Your task to perform on an android device: see creations saved in the google photos Image 0: 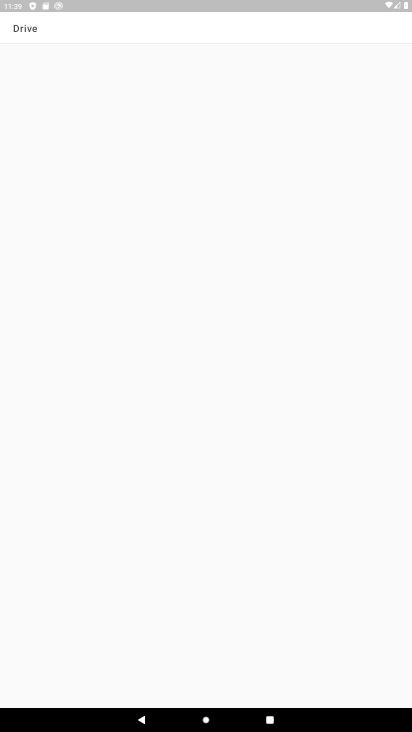
Step 0: press back button
Your task to perform on an android device: see creations saved in the google photos Image 1: 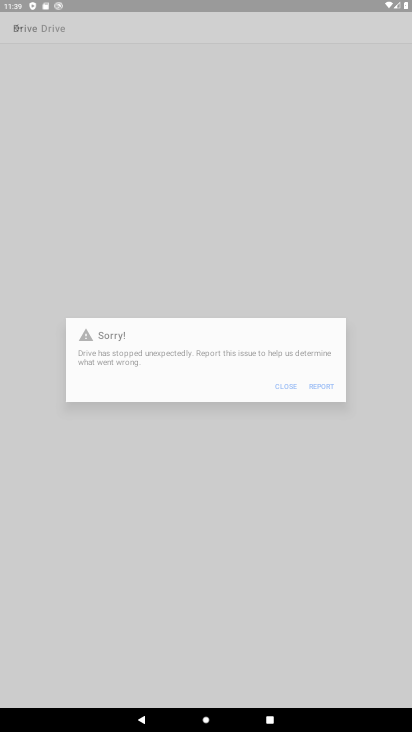
Step 1: press back button
Your task to perform on an android device: see creations saved in the google photos Image 2: 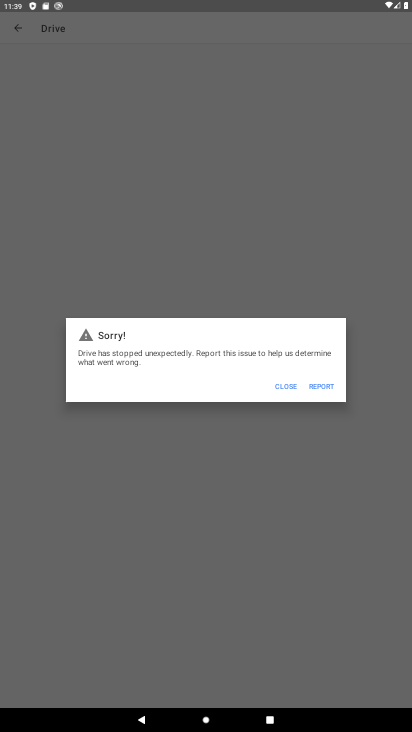
Step 2: press back button
Your task to perform on an android device: see creations saved in the google photos Image 3: 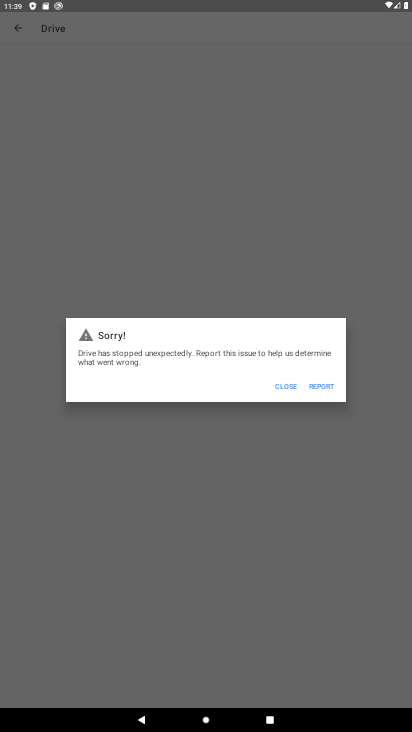
Step 3: press back button
Your task to perform on an android device: see creations saved in the google photos Image 4: 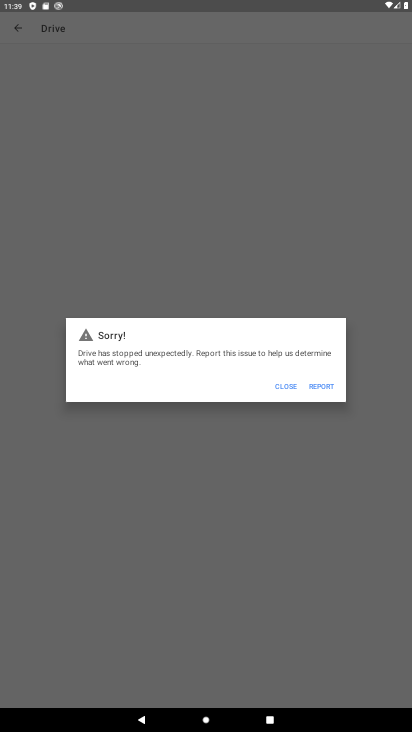
Step 4: click (275, 385)
Your task to perform on an android device: see creations saved in the google photos Image 5: 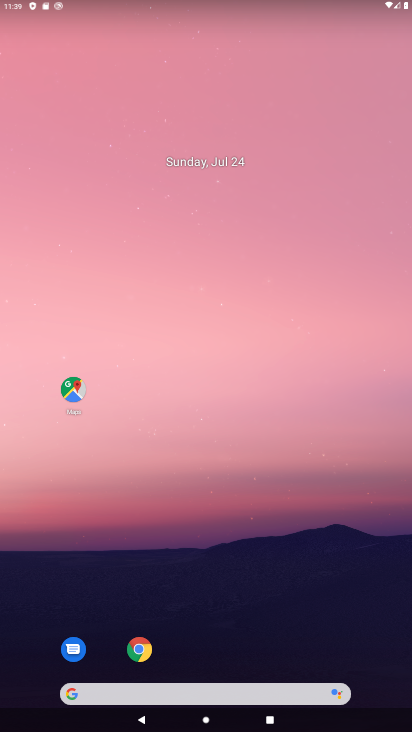
Step 5: drag from (241, 598) to (224, 283)
Your task to perform on an android device: see creations saved in the google photos Image 6: 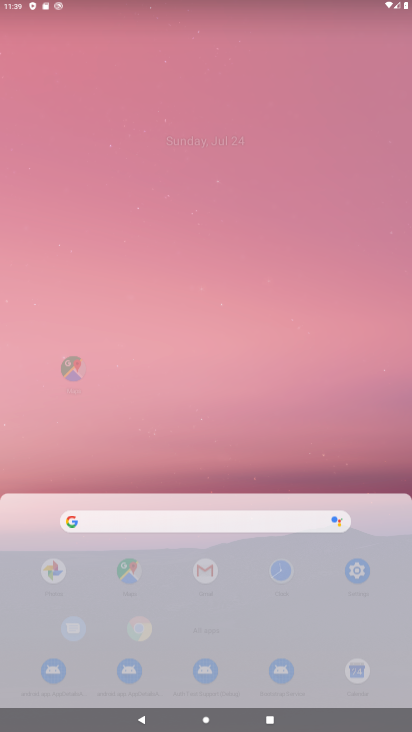
Step 6: drag from (230, 552) to (194, 348)
Your task to perform on an android device: see creations saved in the google photos Image 7: 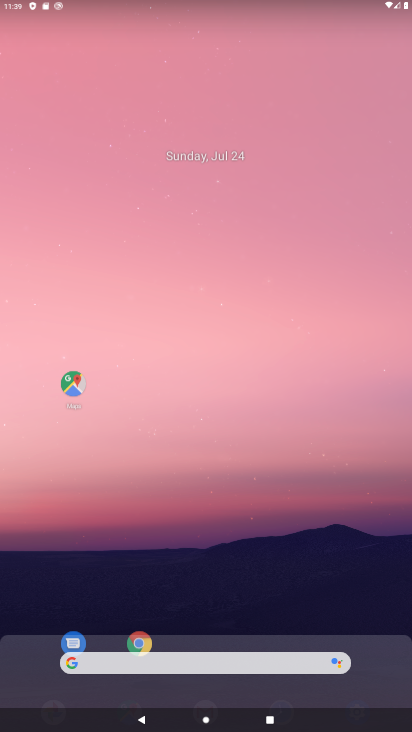
Step 7: drag from (286, 595) to (254, 194)
Your task to perform on an android device: see creations saved in the google photos Image 8: 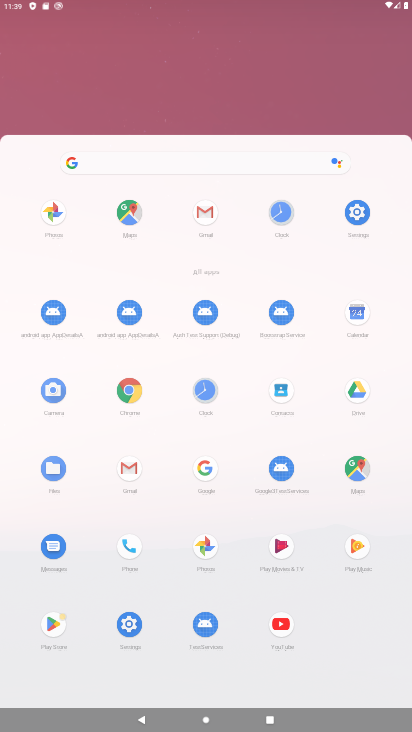
Step 8: drag from (138, 467) to (115, 240)
Your task to perform on an android device: see creations saved in the google photos Image 9: 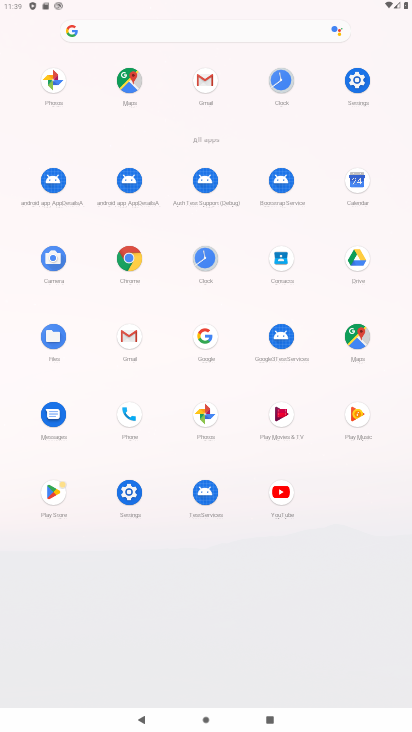
Step 9: drag from (195, 495) to (206, 65)
Your task to perform on an android device: see creations saved in the google photos Image 10: 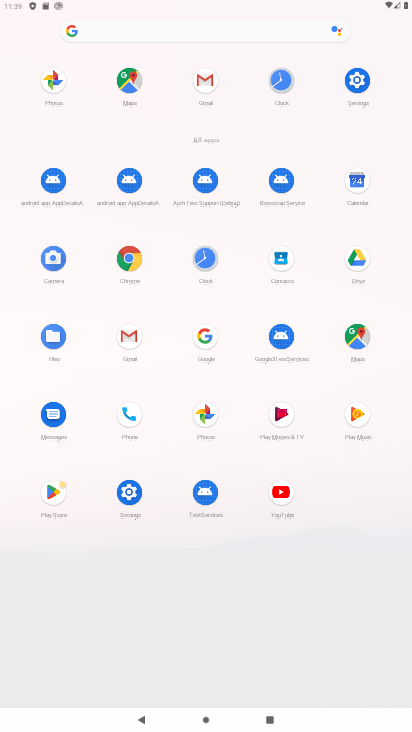
Step 10: click (211, 418)
Your task to perform on an android device: see creations saved in the google photos Image 11: 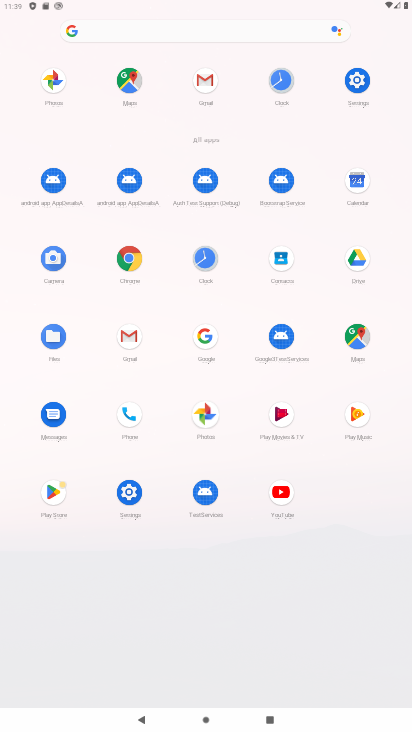
Step 11: click (211, 421)
Your task to perform on an android device: see creations saved in the google photos Image 12: 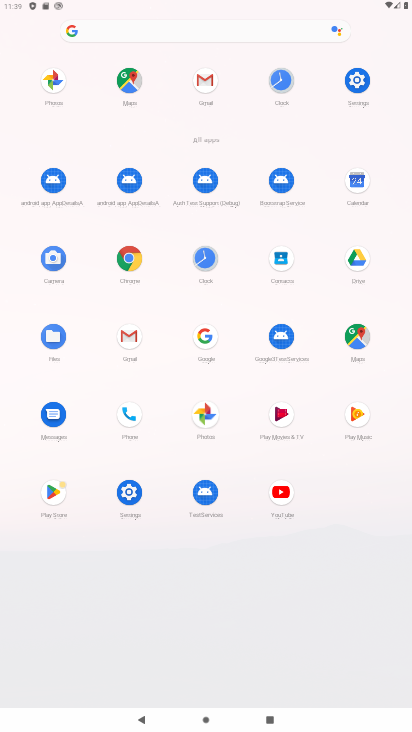
Step 12: click (211, 421)
Your task to perform on an android device: see creations saved in the google photos Image 13: 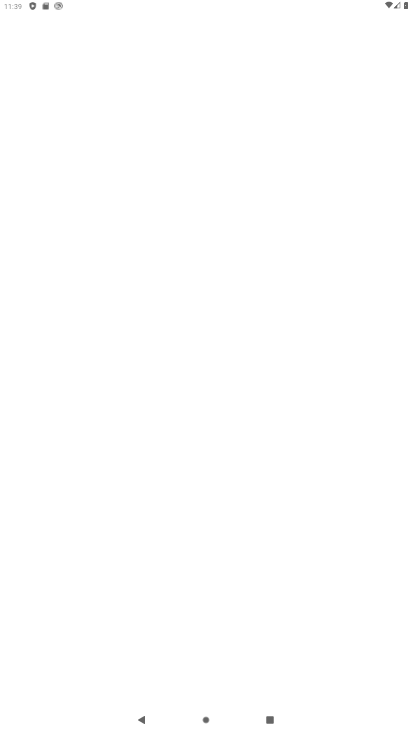
Step 13: click (209, 422)
Your task to perform on an android device: see creations saved in the google photos Image 14: 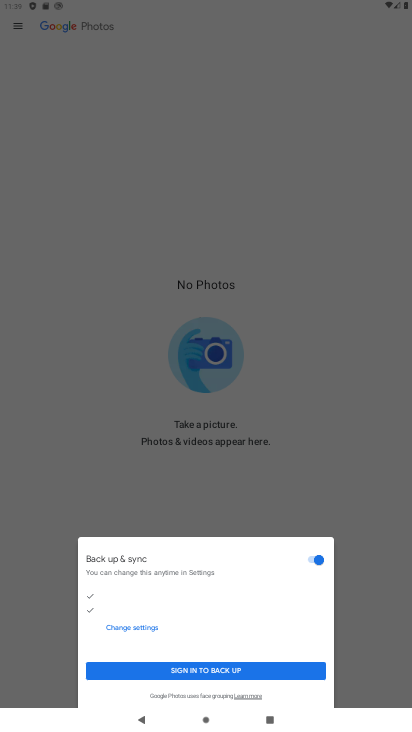
Step 14: click (233, 455)
Your task to perform on an android device: see creations saved in the google photos Image 15: 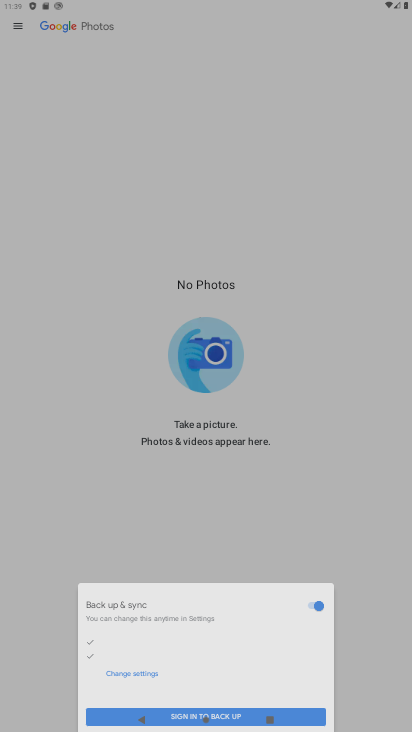
Step 15: click (234, 454)
Your task to perform on an android device: see creations saved in the google photos Image 16: 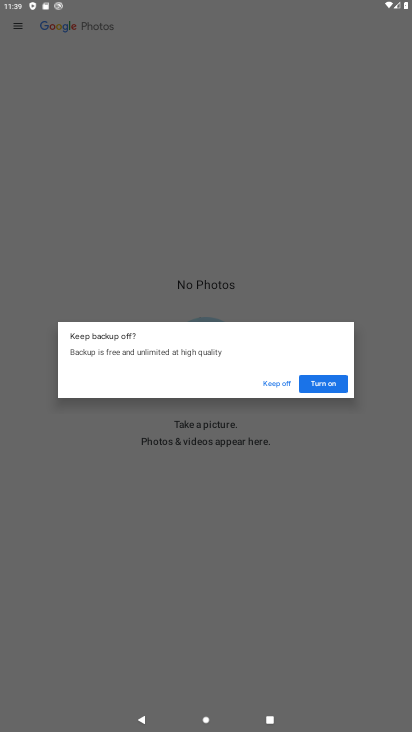
Step 16: click (232, 373)
Your task to perform on an android device: see creations saved in the google photos Image 17: 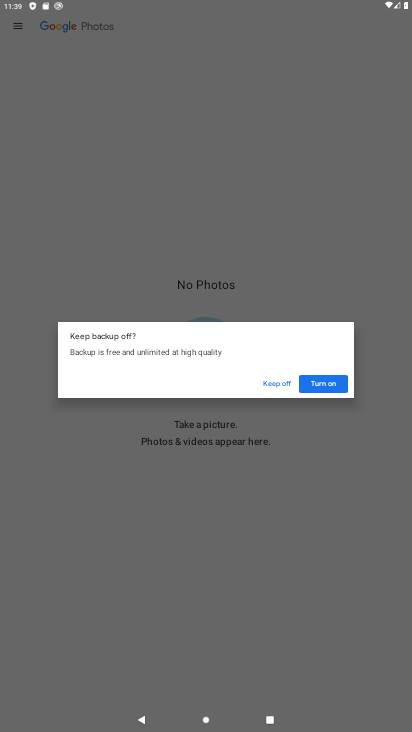
Step 17: click (271, 385)
Your task to perform on an android device: see creations saved in the google photos Image 18: 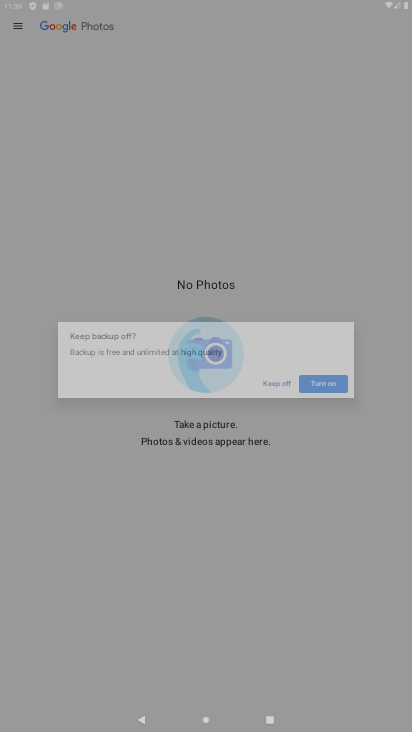
Step 18: task complete